Your task to perform on an android device: Open CNN.com Image 0: 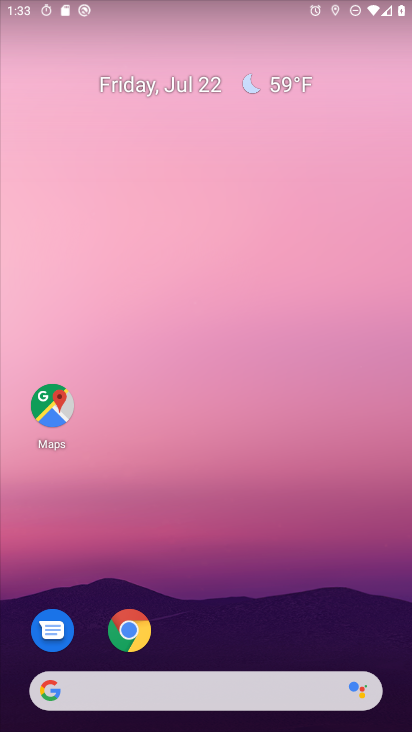
Step 0: press home button
Your task to perform on an android device: Open CNN.com Image 1: 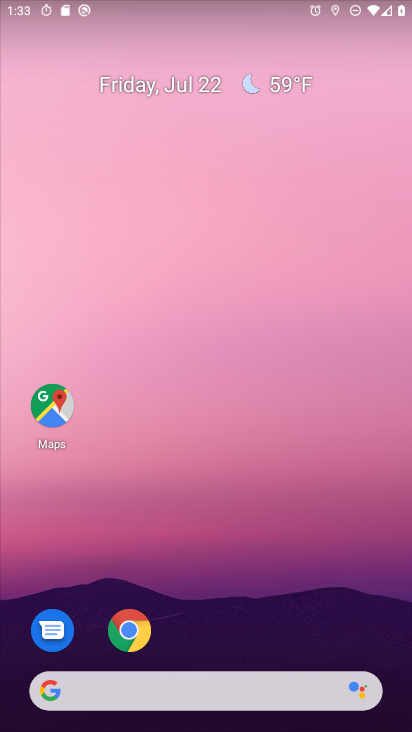
Step 1: click (42, 695)
Your task to perform on an android device: Open CNN.com Image 2: 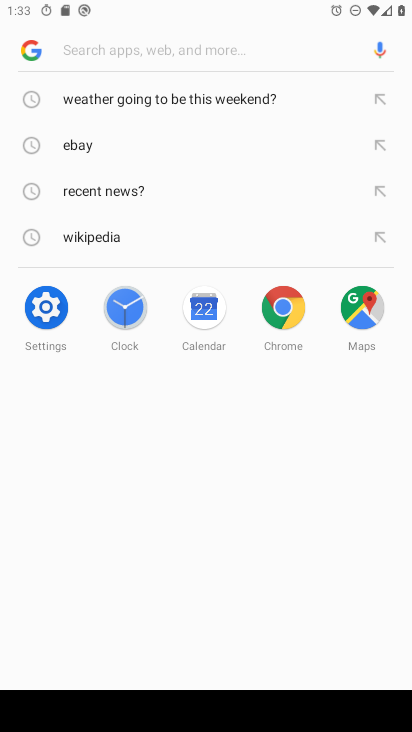
Step 2: type " CNN.com"
Your task to perform on an android device: Open CNN.com Image 3: 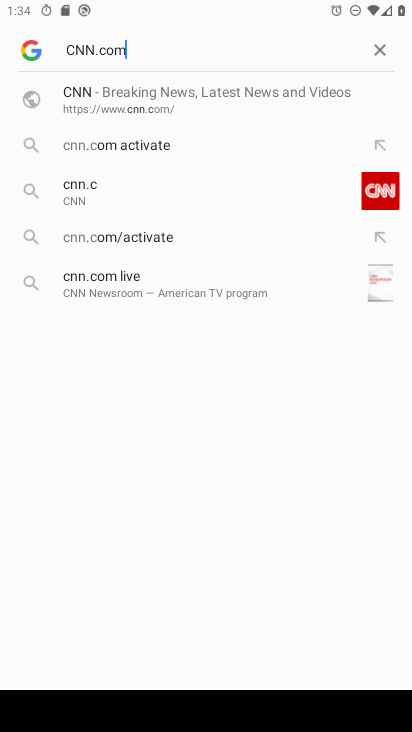
Step 3: press enter
Your task to perform on an android device: Open CNN.com Image 4: 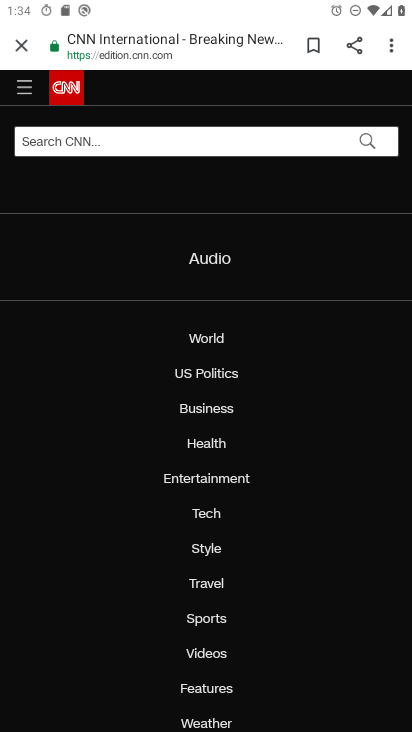
Step 4: task complete